Your task to perform on an android device: Open maps Image 0: 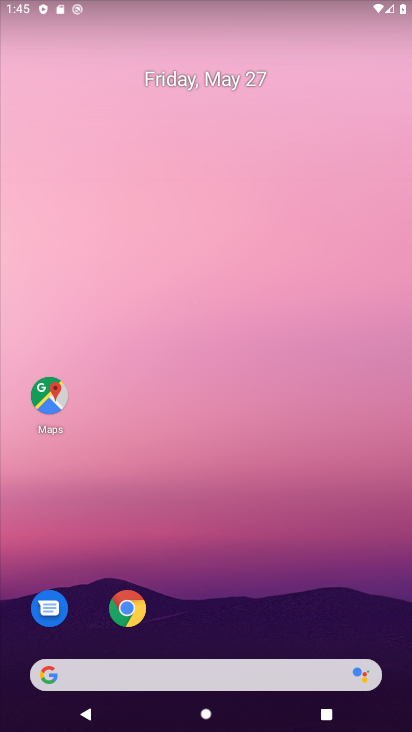
Step 0: click (39, 396)
Your task to perform on an android device: Open maps Image 1: 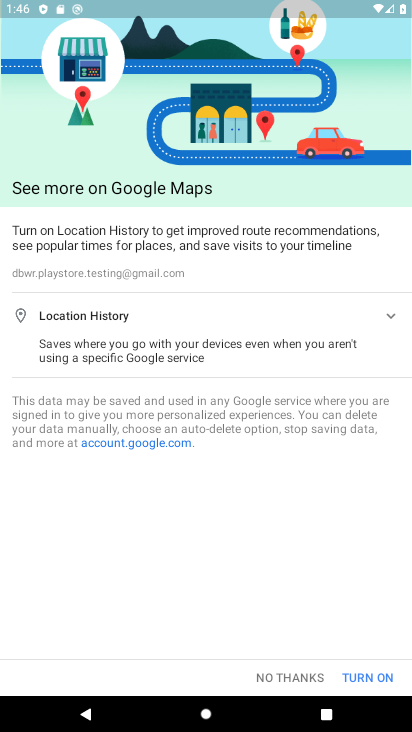
Step 1: click (370, 681)
Your task to perform on an android device: Open maps Image 2: 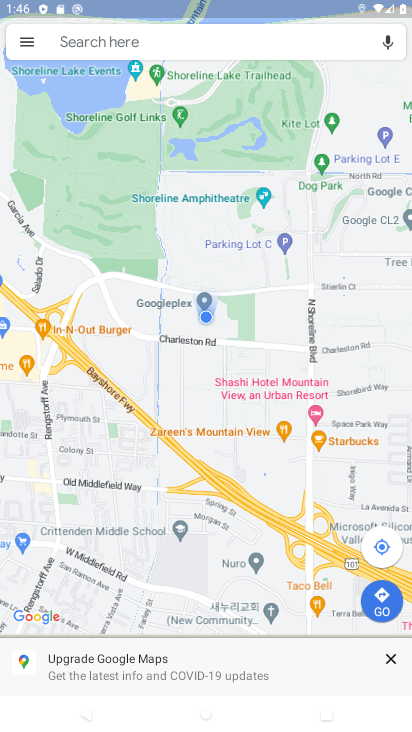
Step 2: task complete